Your task to perform on an android device: Open network settings Image 0: 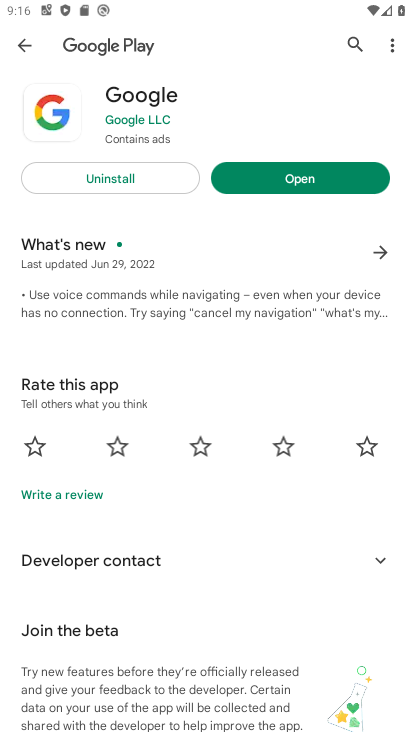
Step 0: press home button
Your task to perform on an android device: Open network settings Image 1: 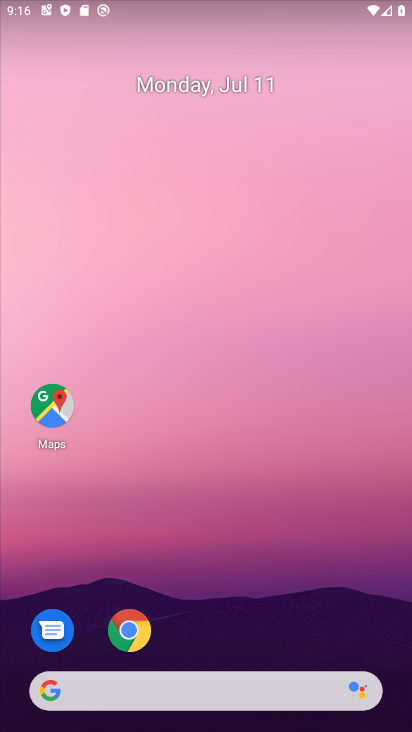
Step 1: drag from (257, 568) to (265, 67)
Your task to perform on an android device: Open network settings Image 2: 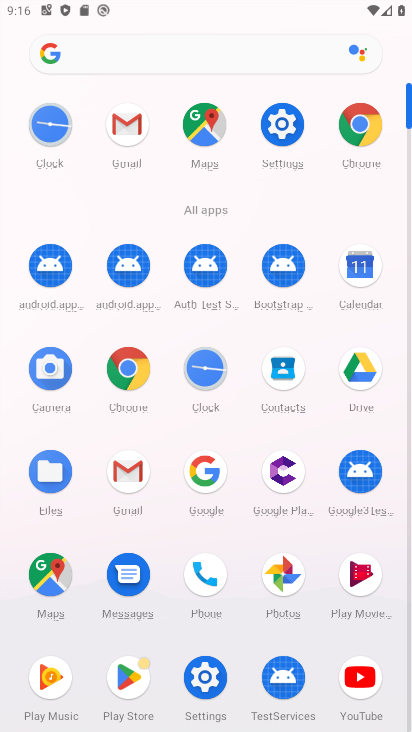
Step 2: click (271, 117)
Your task to perform on an android device: Open network settings Image 3: 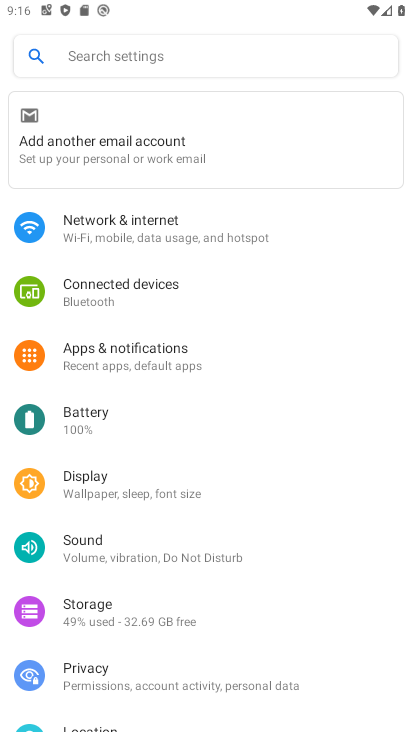
Step 3: click (114, 233)
Your task to perform on an android device: Open network settings Image 4: 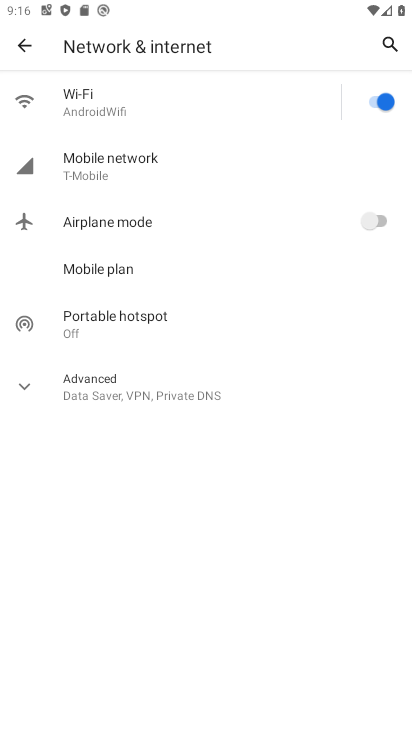
Step 4: task complete